Your task to perform on an android device: Search for the best selling book on Amazon. Image 0: 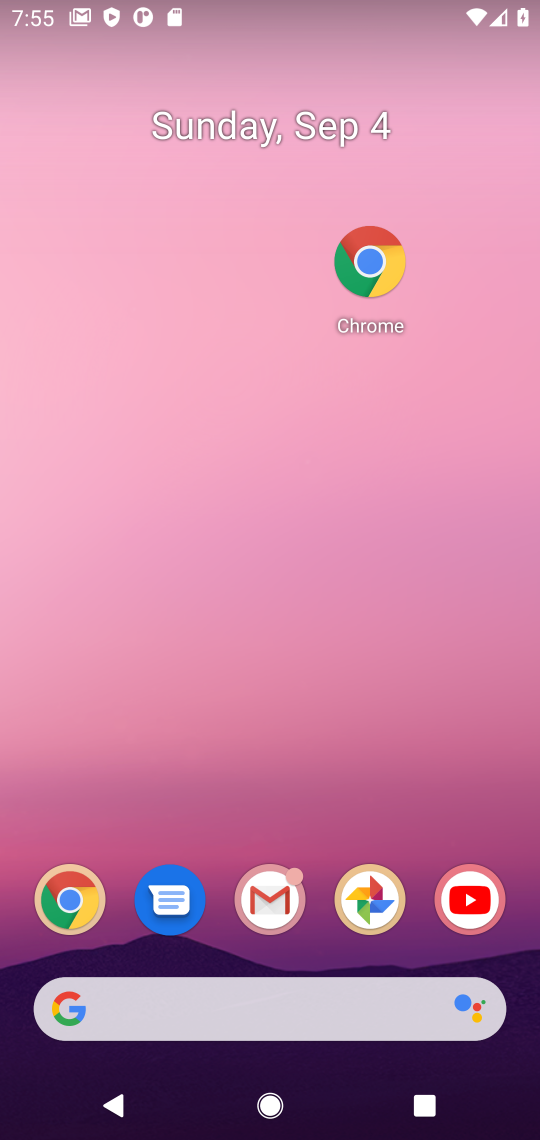
Step 0: click (351, 257)
Your task to perform on an android device: Search for the best selling book on Amazon. Image 1: 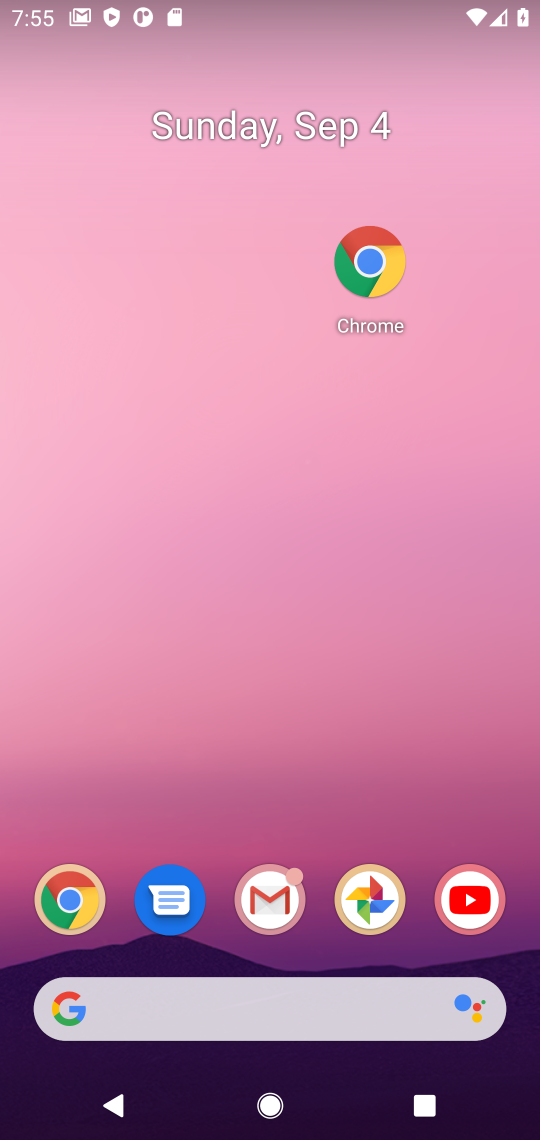
Step 1: click (351, 257)
Your task to perform on an android device: Search for the best selling book on Amazon. Image 2: 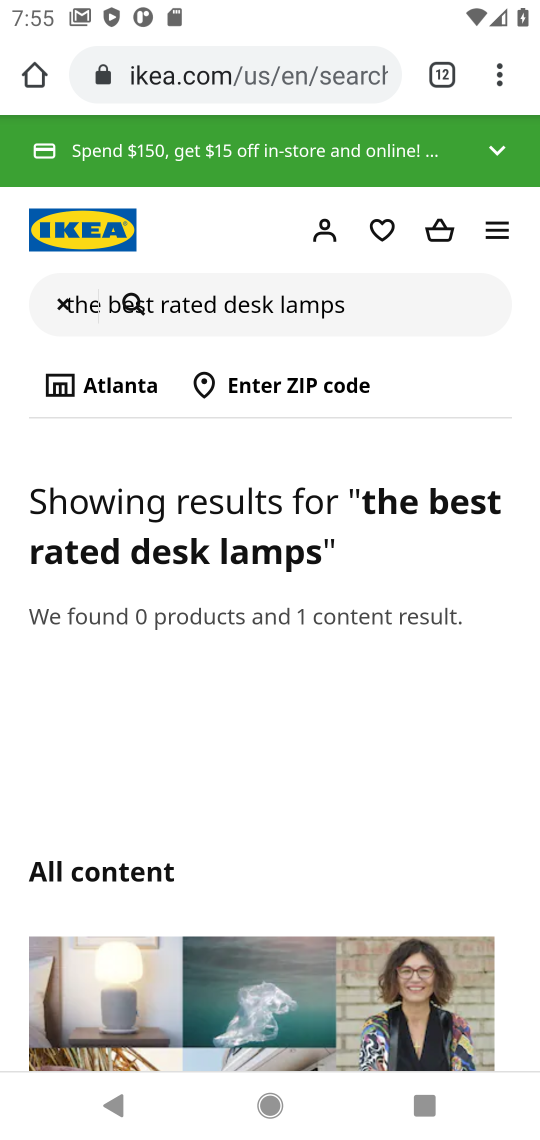
Step 2: click (433, 79)
Your task to perform on an android device: Search for the best selling book on Amazon. Image 3: 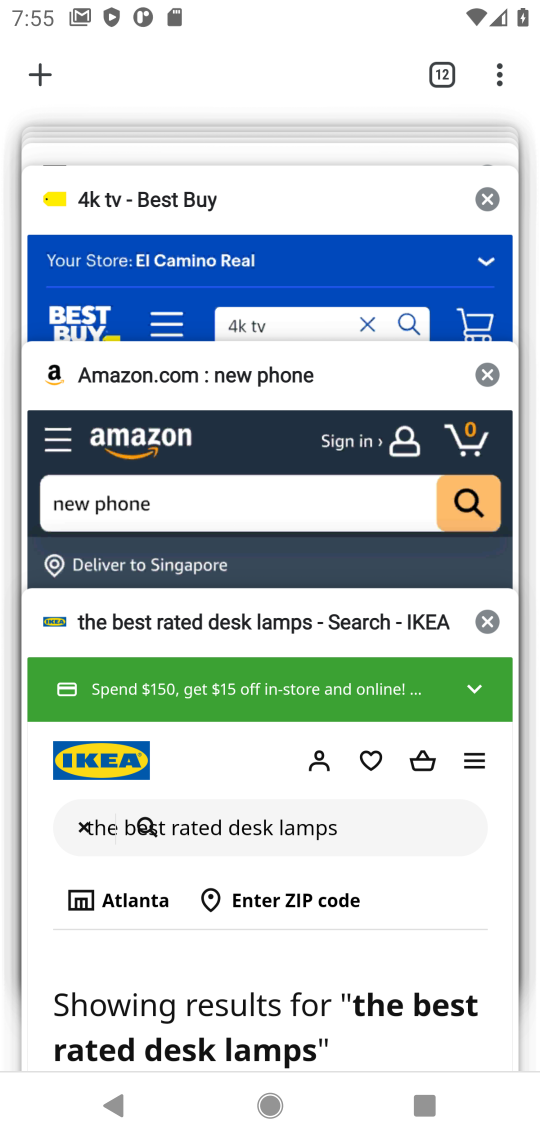
Step 3: click (37, 69)
Your task to perform on an android device: Search for the best selling book on Amazon. Image 4: 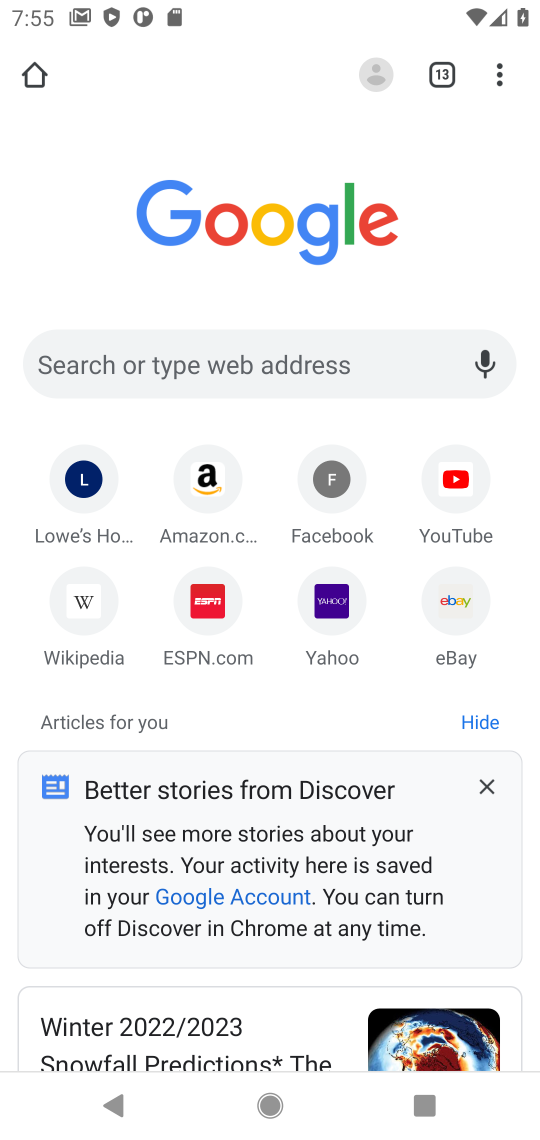
Step 4: click (205, 486)
Your task to perform on an android device: Search for the best selling book on Amazon. Image 5: 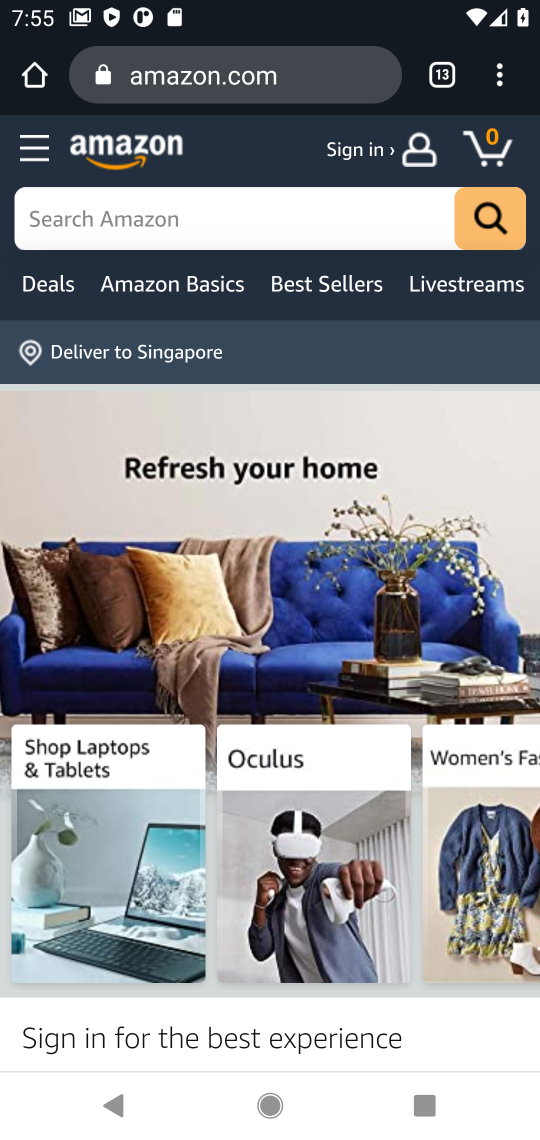
Step 5: click (233, 209)
Your task to perform on an android device: Search for the best selling book on Amazon. Image 6: 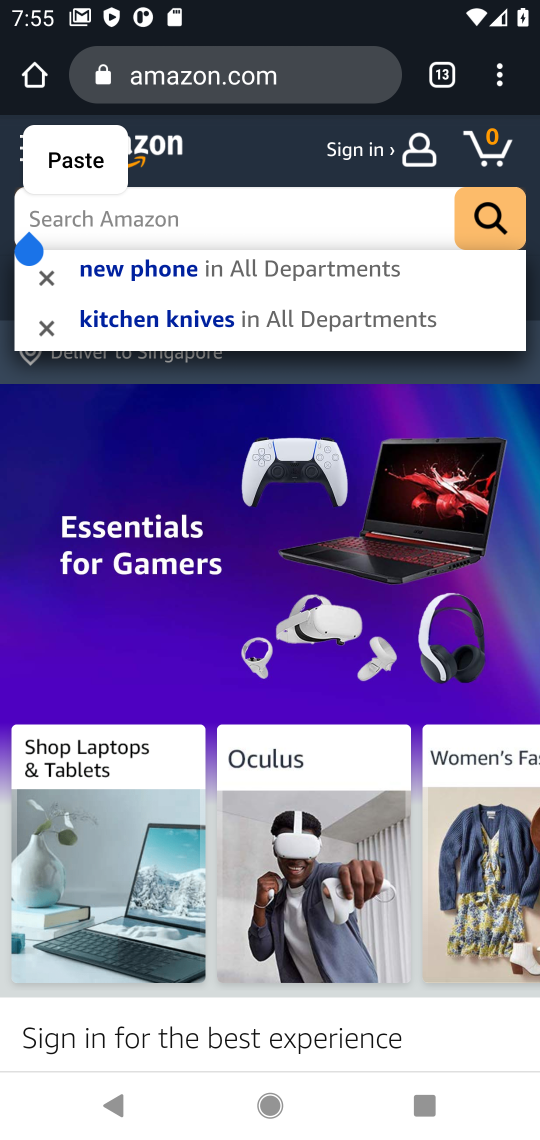
Step 6: type "the best selling book"
Your task to perform on an android device: Search for the best selling book on Amazon. Image 7: 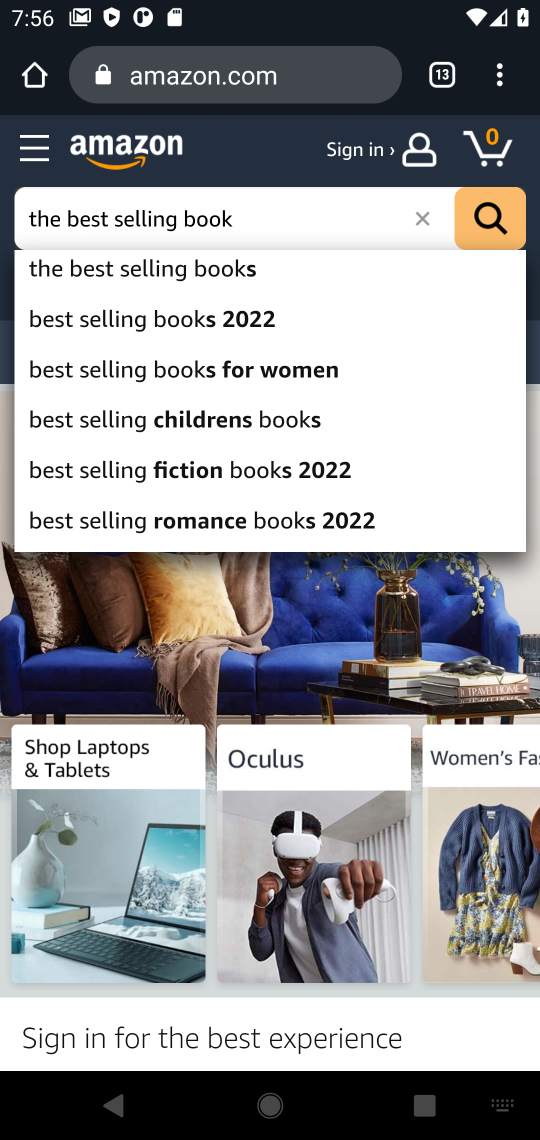
Step 7: click (321, 257)
Your task to perform on an android device: Search for the best selling book on Amazon. Image 8: 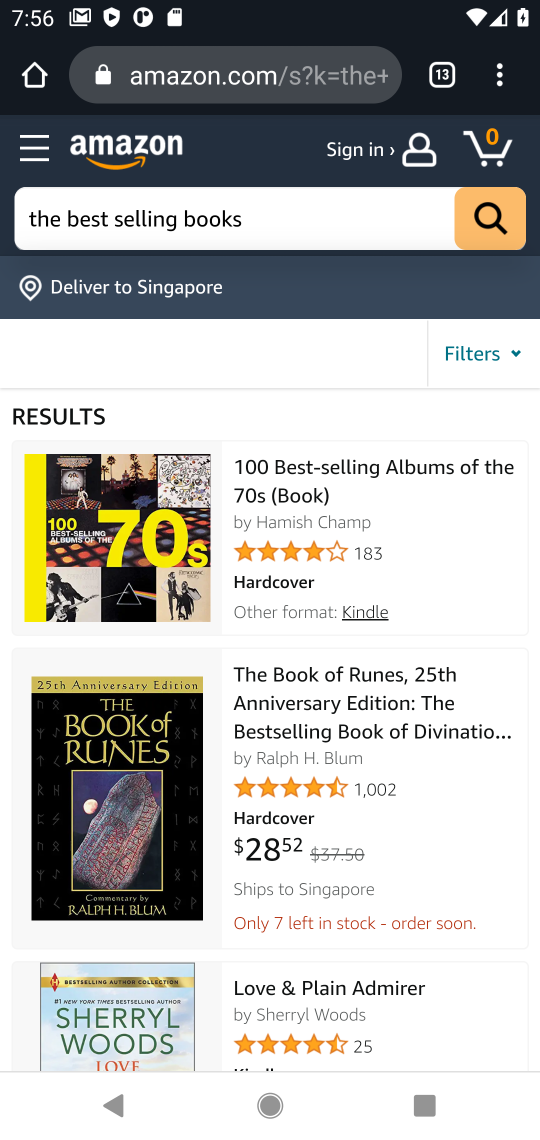
Step 8: task complete